Your task to perform on an android device: refresh tabs in the chrome app Image 0: 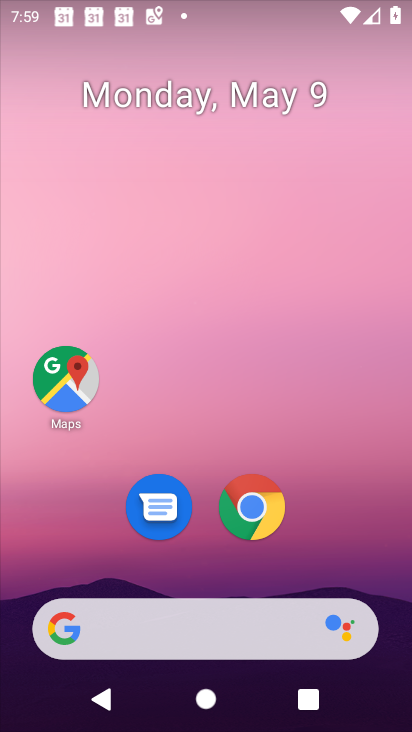
Step 0: drag from (257, 669) to (255, 243)
Your task to perform on an android device: refresh tabs in the chrome app Image 1: 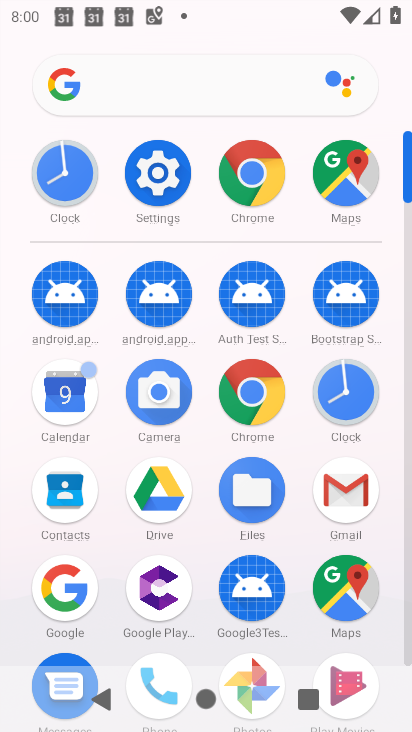
Step 1: click (266, 184)
Your task to perform on an android device: refresh tabs in the chrome app Image 2: 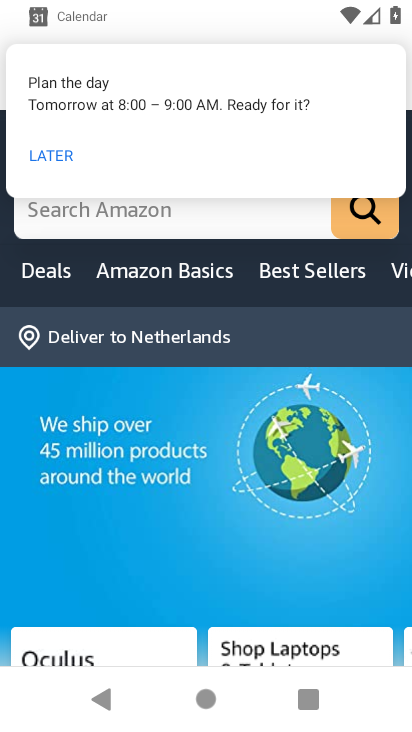
Step 2: click (54, 154)
Your task to perform on an android device: refresh tabs in the chrome app Image 3: 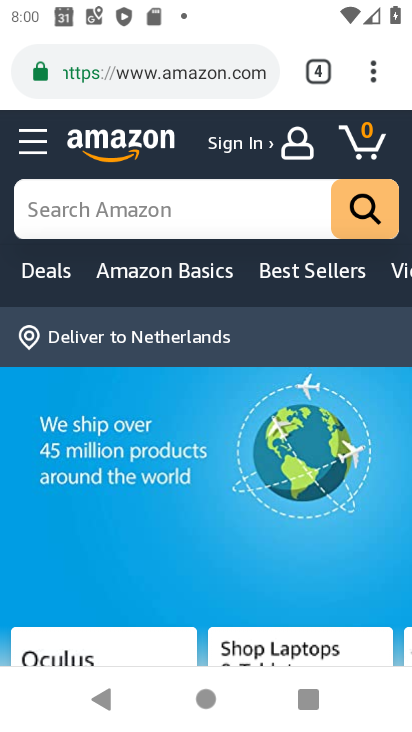
Step 3: click (364, 88)
Your task to perform on an android device: refresh tabs in the chrome app Image 4: 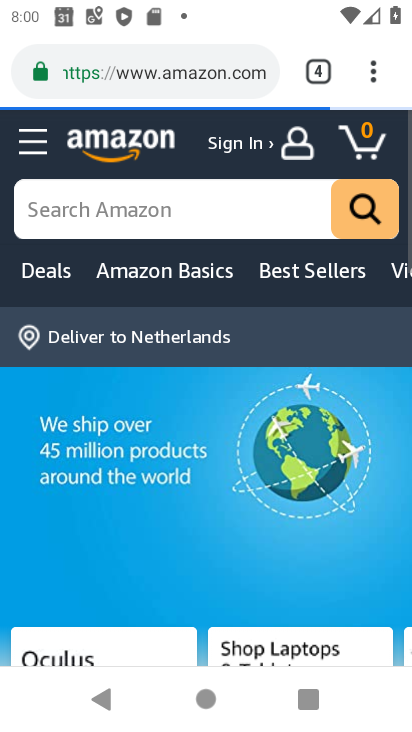
Step 4: click (382, 87)
Your task to perform on an android device: refresh tabs in the chrome app Image 5: 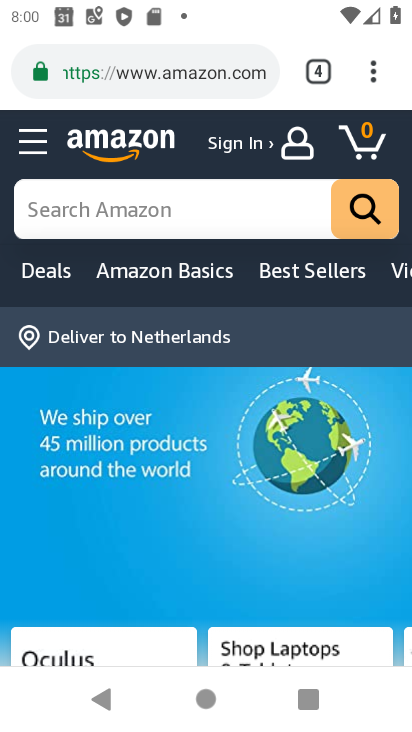
Step 5: click (375, 88)
Your task to perform on an android device: refresh tabs in the chrome app Image 6: 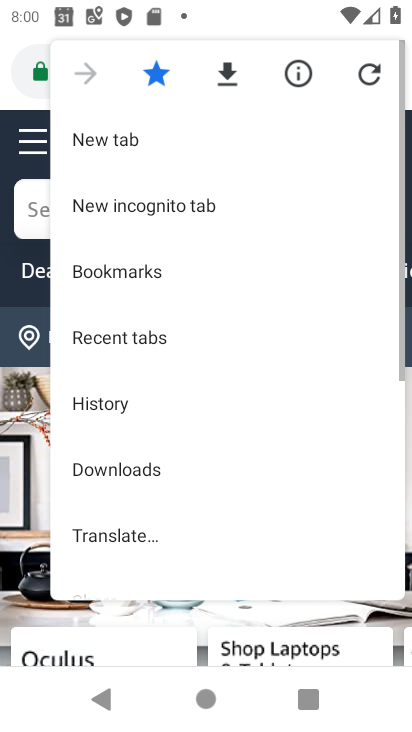
Step 6: click (371, 72)
Your task to perform on an android device: refresh tabs in the chrome app Image 7: 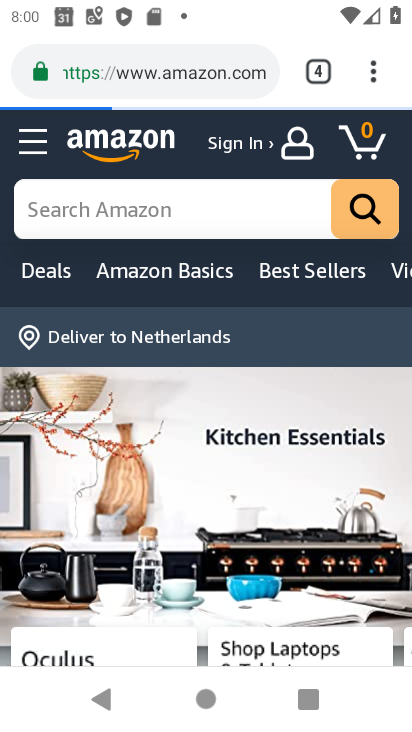
Step 7: task complete